Your task to perform on an android device: Go to accessibility settings Image 0: 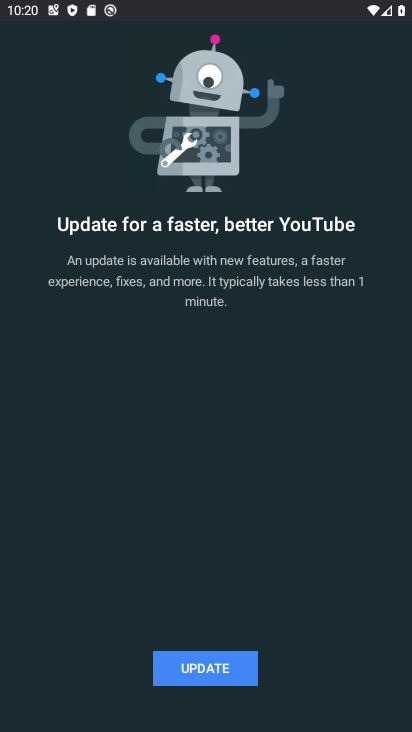
Step 0: press home button
Your task to perform on an android device: Go to accessibility settings Image 1: 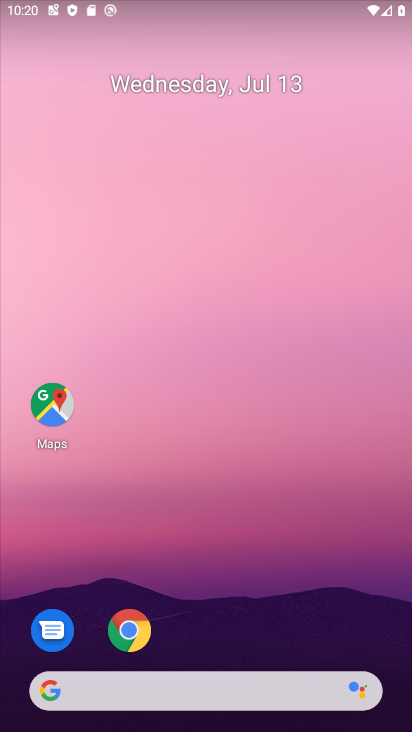
Step 1: drag from (309, 563) to (156, 0)
Your task to perform on an android device: Go to accessibility settings Image 2: 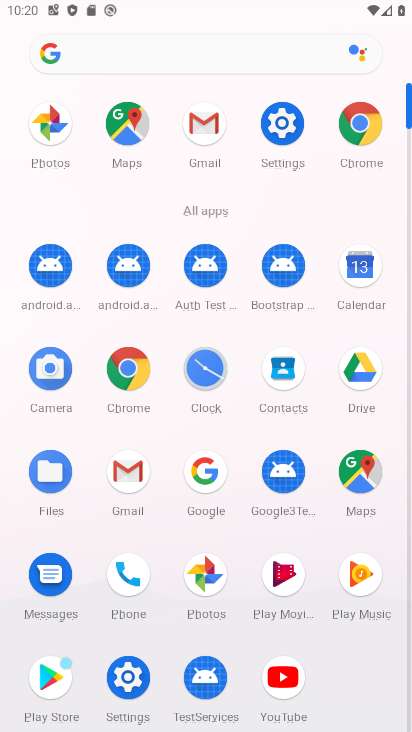
Step 2: click (263, 123)
Your task to perform on an android device: Go to accessibility settings Image 3: 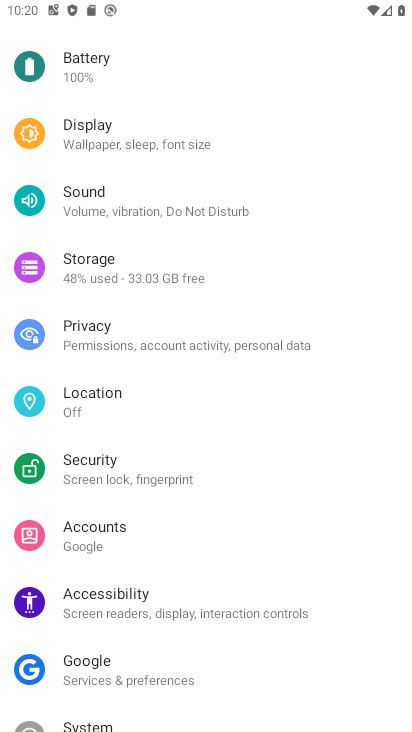
Step 3: click (121, 591)
Your task to perform on an android device: Go to accessibility settings Image 4: 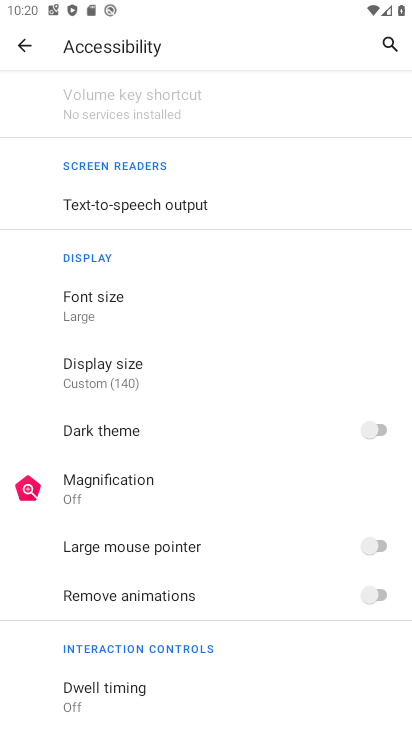
Step 4: task complete